Your task to perform on an android device: turn off location Image 0: 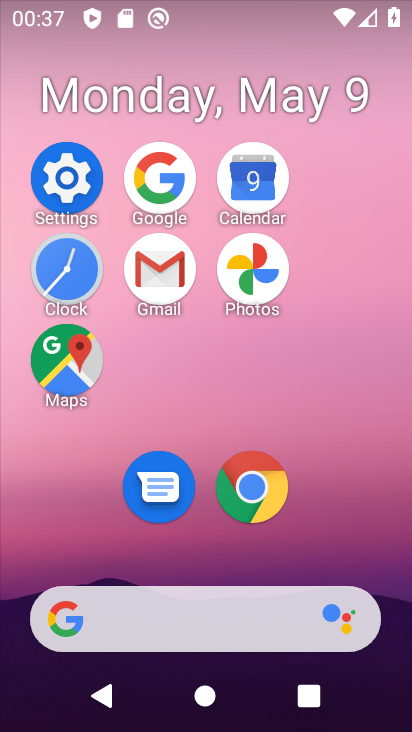
Step 0: click (73, 186)
Your task to perform on an android device: turn off location Image 1: 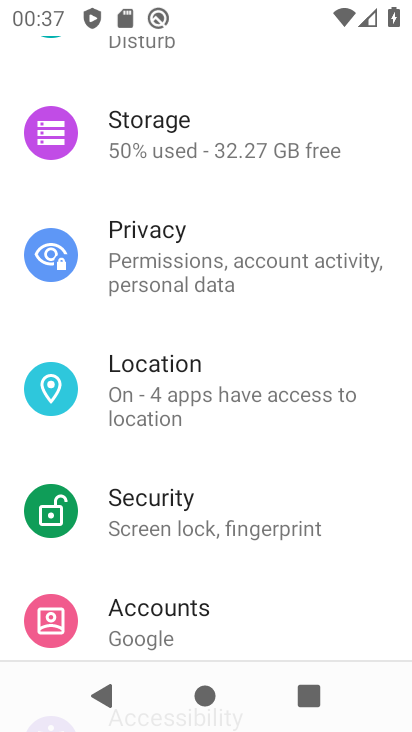
Step 1: click (262, 392)
Your task to perform on an android device: turn off location Image 2: 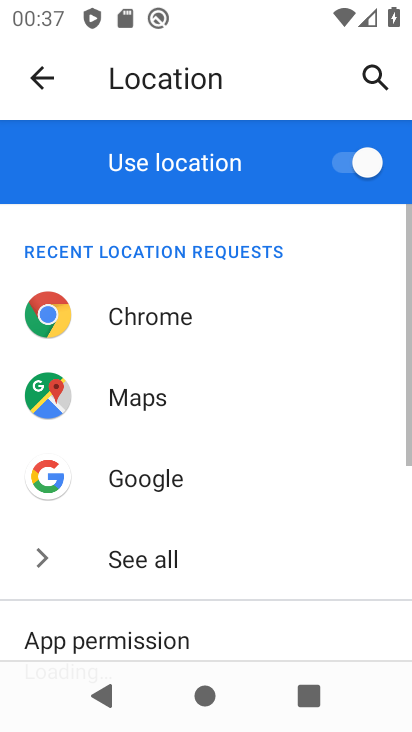
Step 2: click (368, 164)
Your task to perform on an android device: turn off location Image 3: 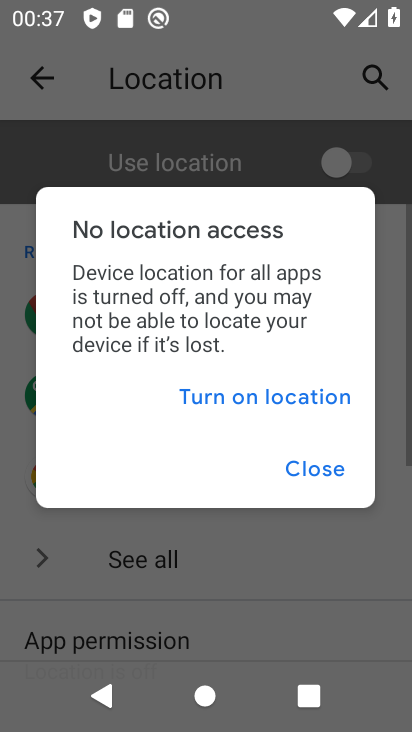
Step 3: task complete